Your task to perform on an android device: Show me popular videos on Youtube Image 0: 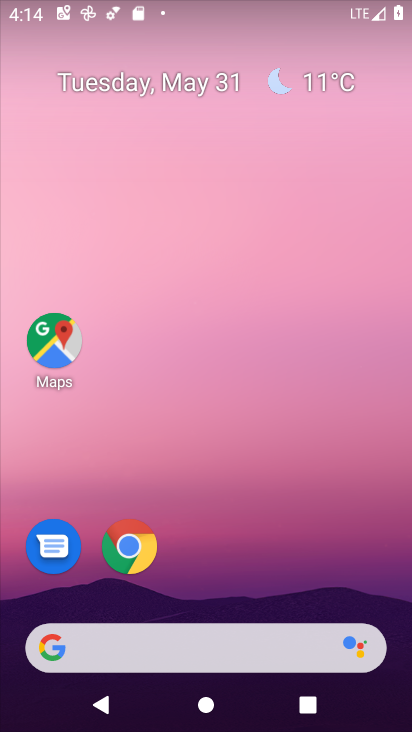
Step 0: click (180, 24)
Your task to perform on an android device: Show me popular videos on Youtube Image 1: 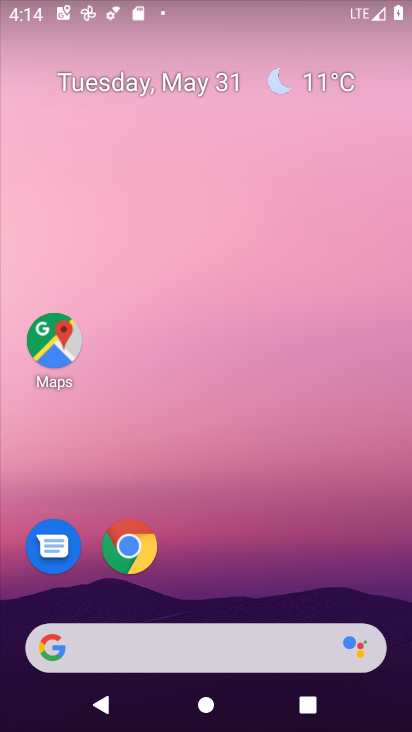
Step 1: drag from (258, 560) to (177, 16)
Your task to perform on an android device: Show me popular videos on Youtube Image 2: 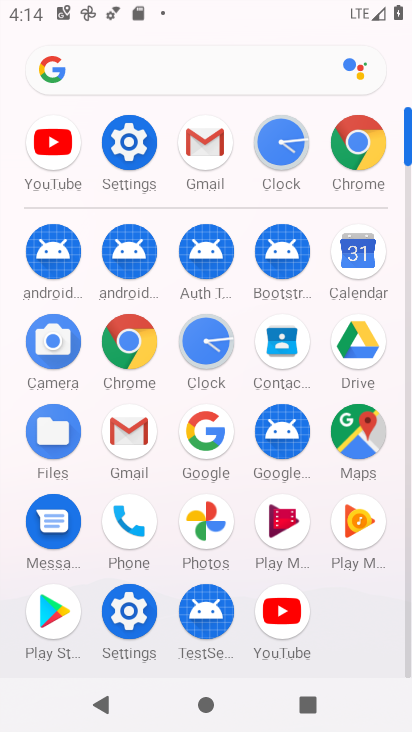
Step 2: click (285, 609)
Your task to perform on an android device: Show me popular videos on Youtube Image 3: 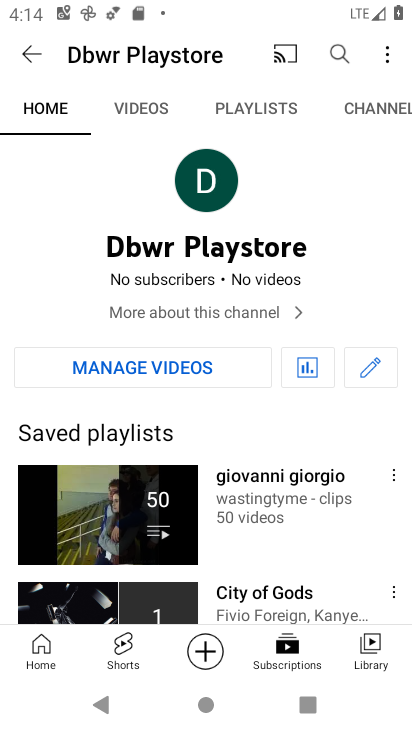
Step 3: click (45, 647)
Your task to perform on an android device: Show me popular videos on Youtube Image 4: 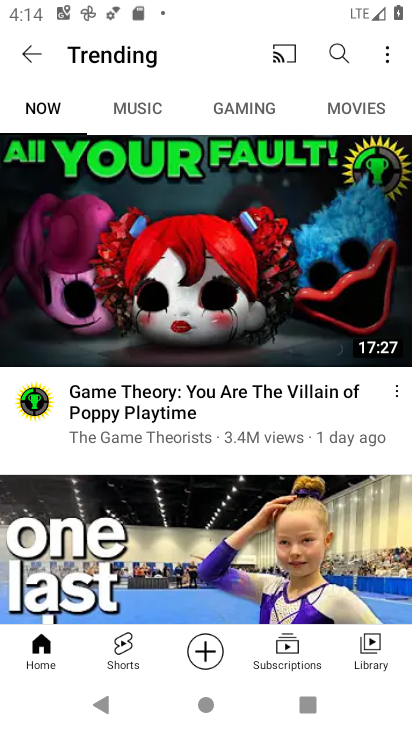
Step 4: task complete